Your task to perform on an android device: Toggle the flashlight Image 0: 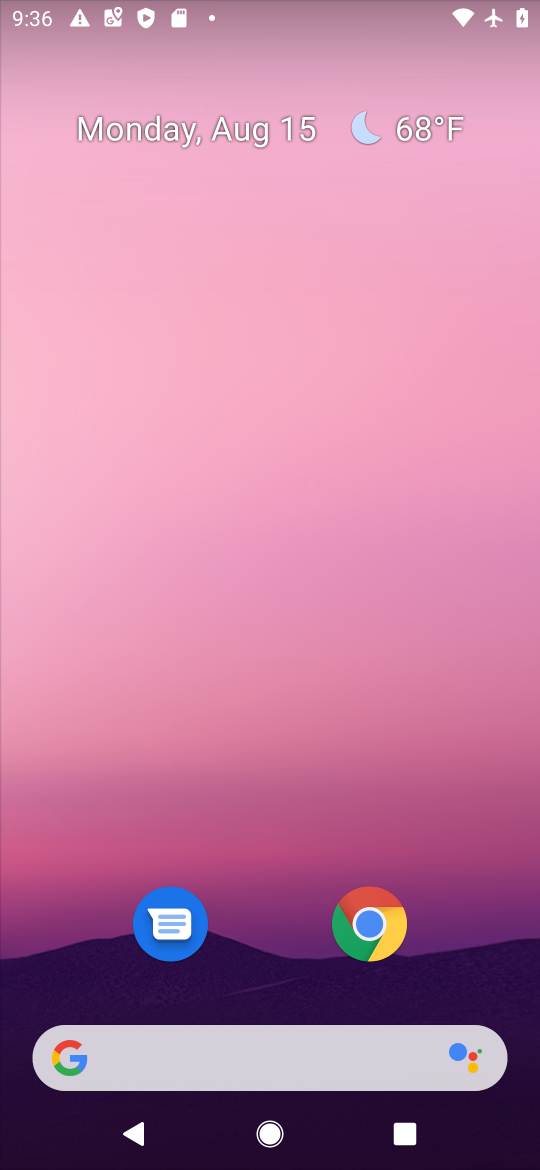
Step 0: drag from (313, 20) to (326, 1097)
Your task to perform on an android device: Toggle the flashlight Image 1: 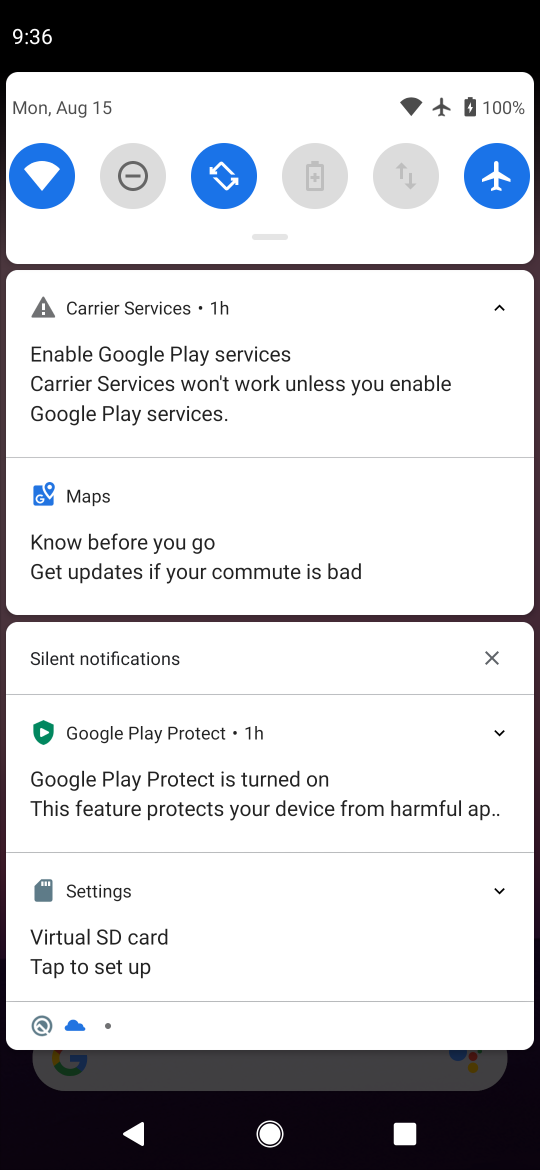
Step 1: drag from (282, 261) to (323, 772)
Your task to perform on an android device: Toggle the flashlight Image 2: 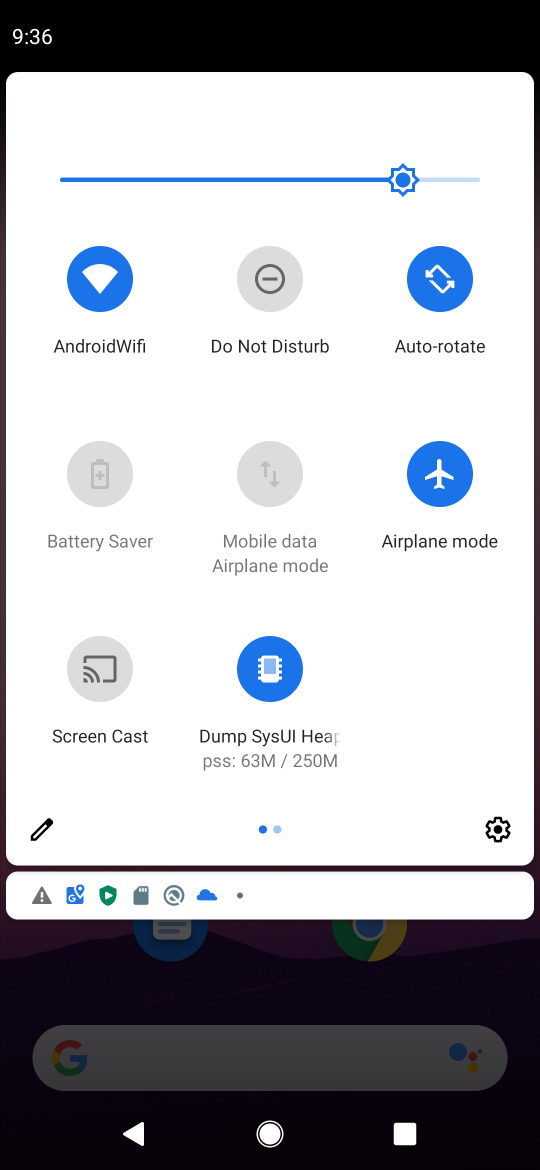
Step 2: click (38, 832)
Your task to perform on an android device: Toggle the flashlight Image 3: 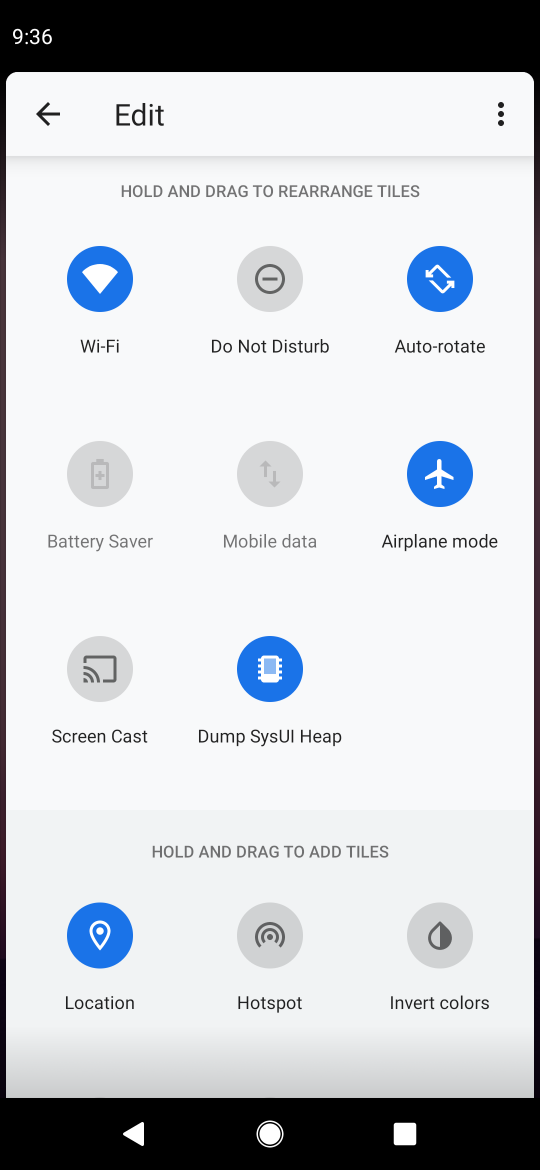
Step 3: task complete